Your task to perform on an android device: change text size in settings app Image 0: 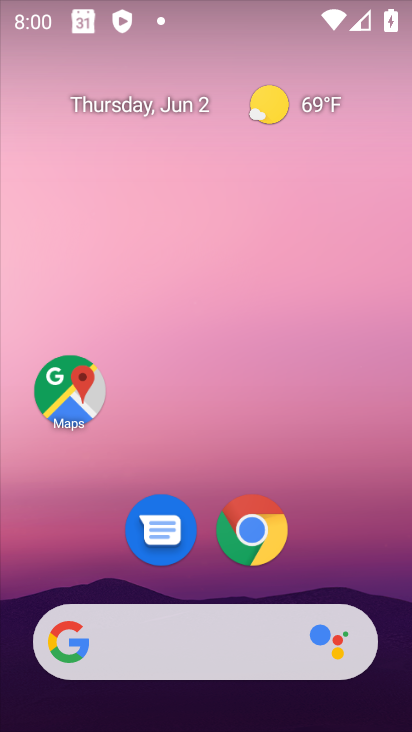
Step 0: drag from (211, 627) to (168, 143)
Your task to perform on an android device: change text size in settings app Image 1: 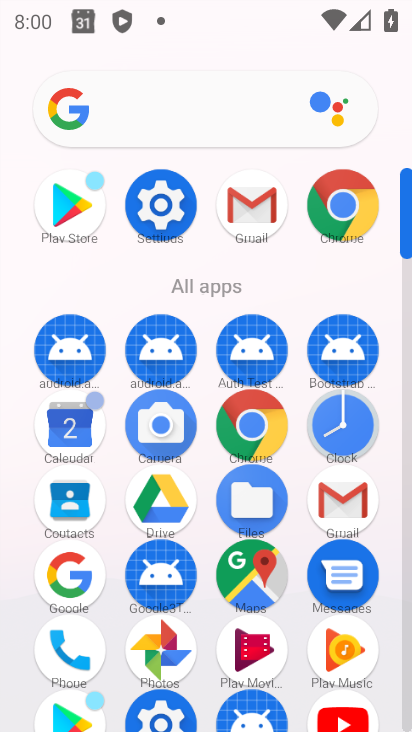
Step 1: click (172, 201)
Your task to perform on an android device: change text size in settings app Image 2: 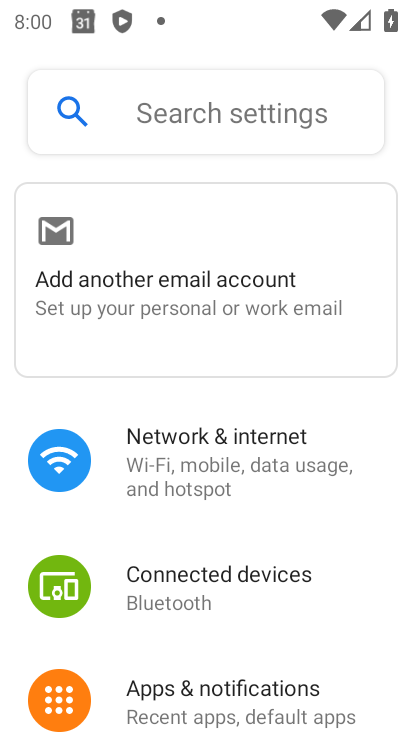
Step 2: drag from (295, 571) to (254, 192)
Your task to perform on an android device: change text size in settings app Image 3: 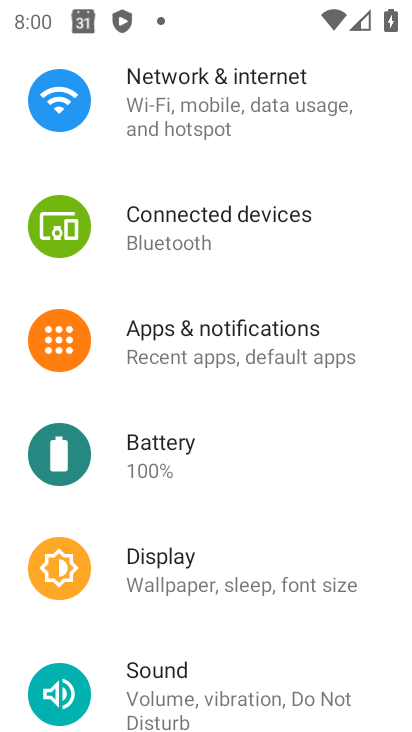
Step 3: click (167, 564)
Your task to perform on an android device: change text size in settings app Image 4: 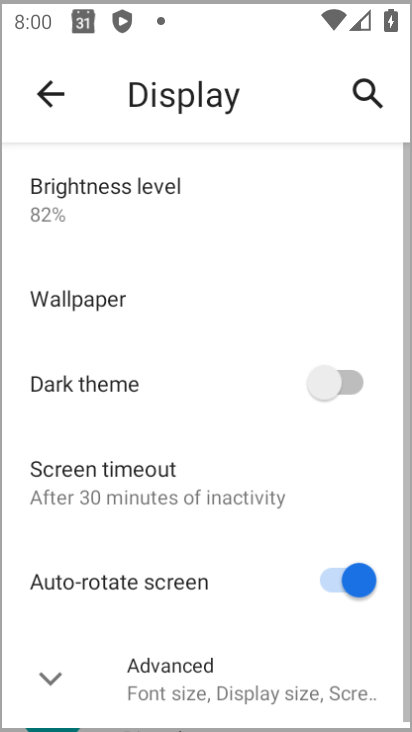
Step 4: drag from (167, 564) to (155, 106)
Your task to perform on an android device: change text size in settings app Image 5: 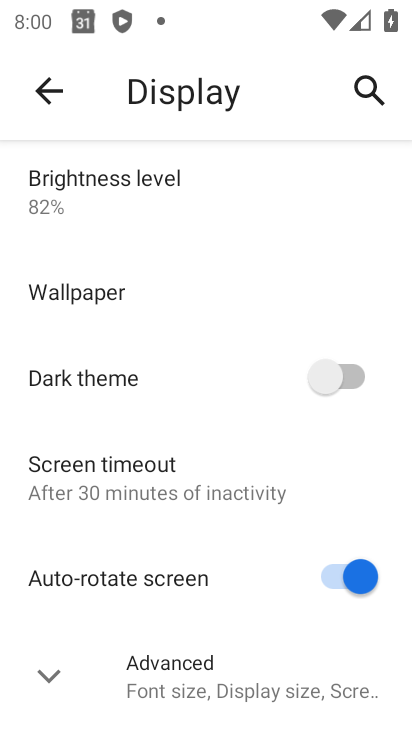
Step 5: click (153, 657)
Your task to perform on an android device: change text size in settings app Image 6: 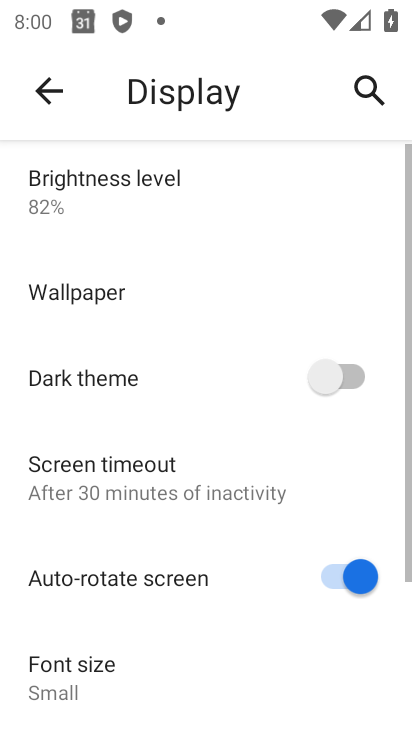
Step 6: drag from (148, 623) to (114, 282)
Your task to perform on an android device: change text size in settings app Image 7: 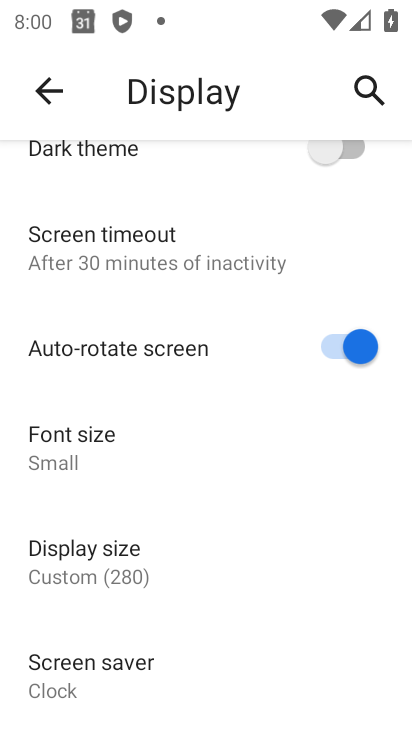
Step 7: click (84, 477)
Your task to perform on an android device: change text size in settings app Image 8: 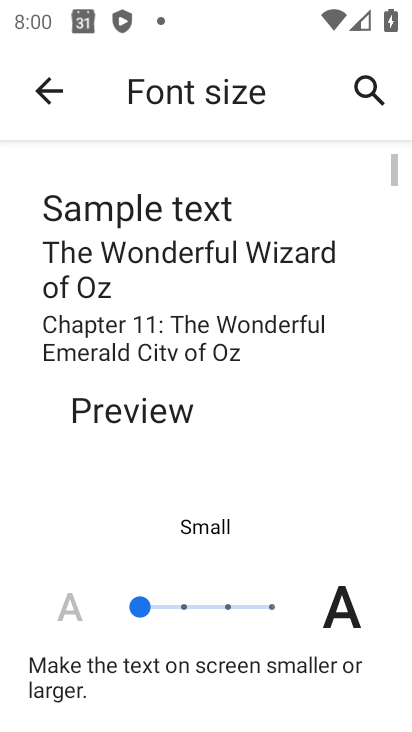
Step 8: click (188, 608)
Your task to perform on an android device: change text size in settings app Image 9: 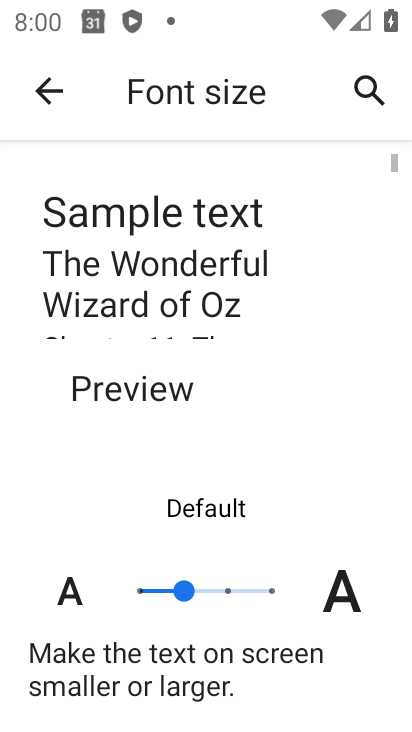
Step 9: task complete